Your task to perform on an android device: move an email to a new category in the gmail app Image 0: 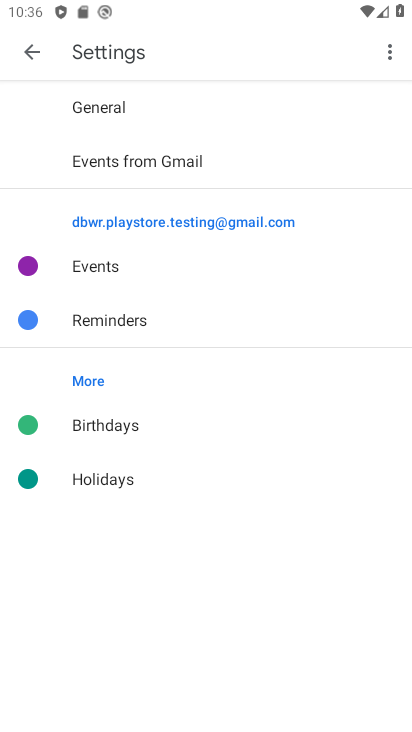
Step 0: press home button
Your task to perform on an android device: move an email to a new category in the gmail app Image 1: 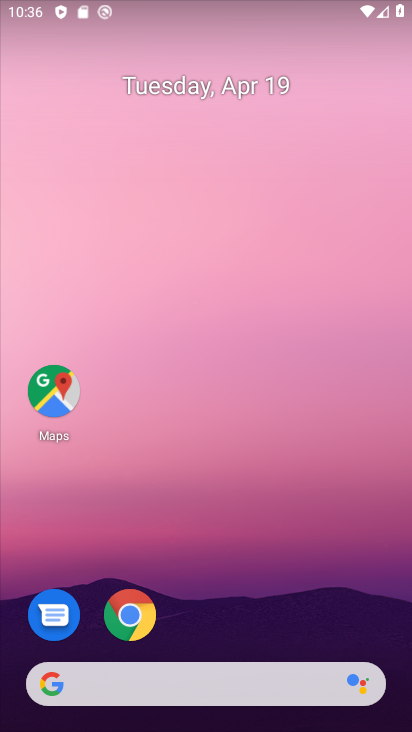
Step 1: drag from (214, 310) to (214, 108)
Your task to perform on an android device: move an email to a new category in the gmail app Image 2: 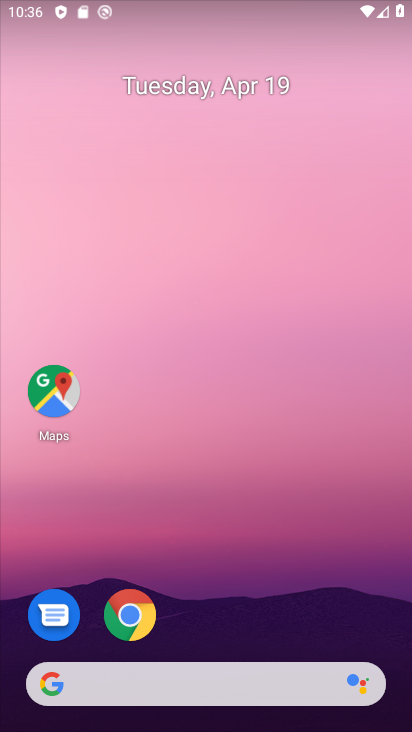
Step 2: drag from (241, 613) to (244, 67)
Your task to perform on an android device: move an email to a new category in the gmail app Image 3: 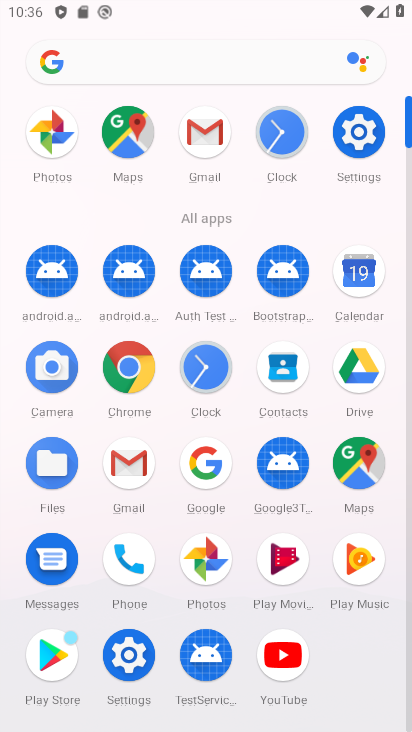
Step 3: click (192, 132)
Your task to perform on an android device: move an email to a new category in the gmail app Image 4: 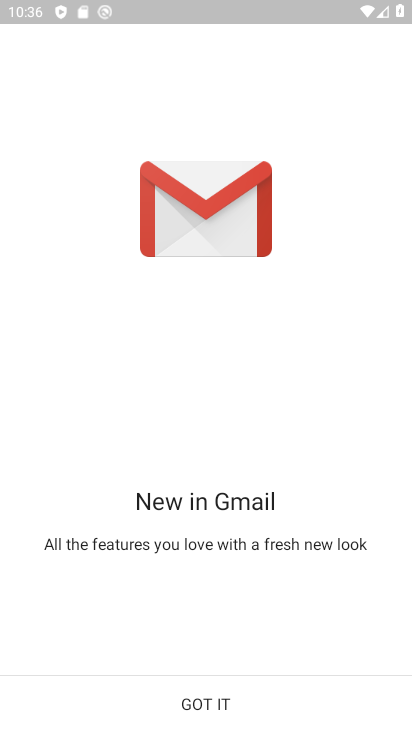
Step 4: click (260, 707)
Your task to perform on an android device: move an email to a new category in the gmail app Image 5: 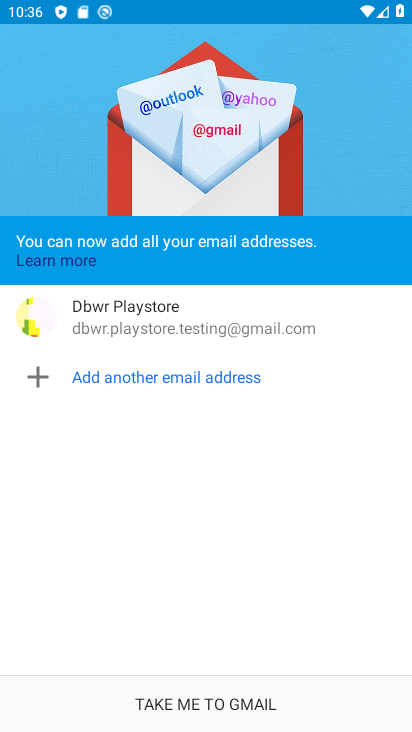
Step 5: click (250, 708)
Your task to perform on an android device: move an email to a new category in the gmail app Image 6: 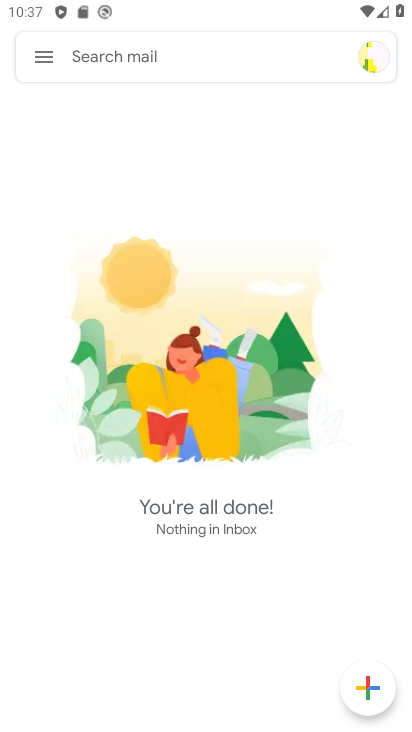
Step 6: click (44, 56)
Your task to perform on an android device: move an email to a new category in the gmail app Image 7: 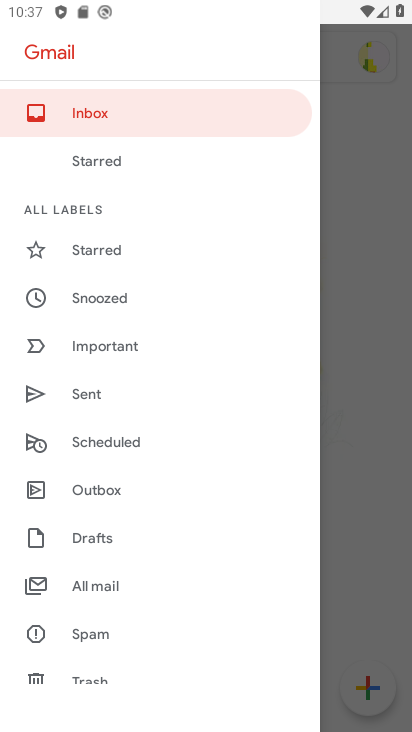
Step 7: drag from (193, 560) to (170, 225)
Your task to perform on an android device: move an email to a new category in the gmail app Image 8: 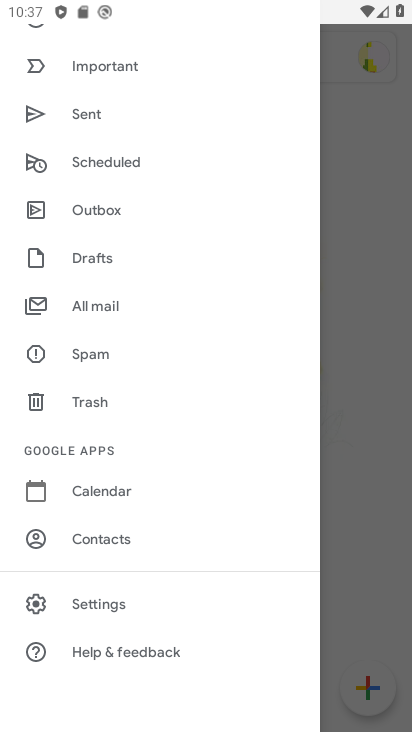
Step 8: click (143, 447)
Your task to perform on an android device: move an email to a new category in the gmail app Image 9: 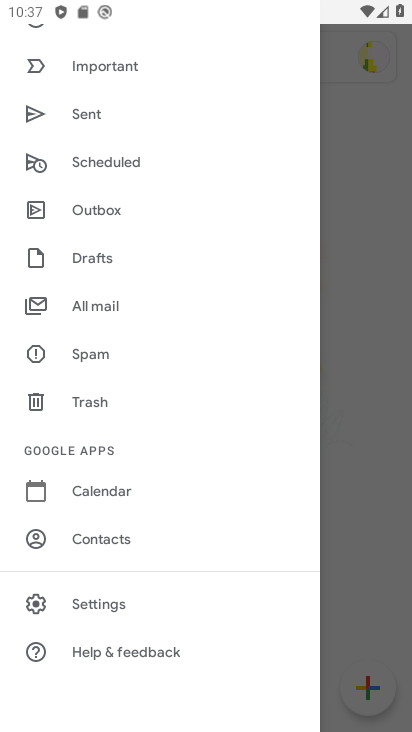
Step 9: click (130, 296)
Your task to perform on an android device: move an email to a new category in the gmail app Image 10: 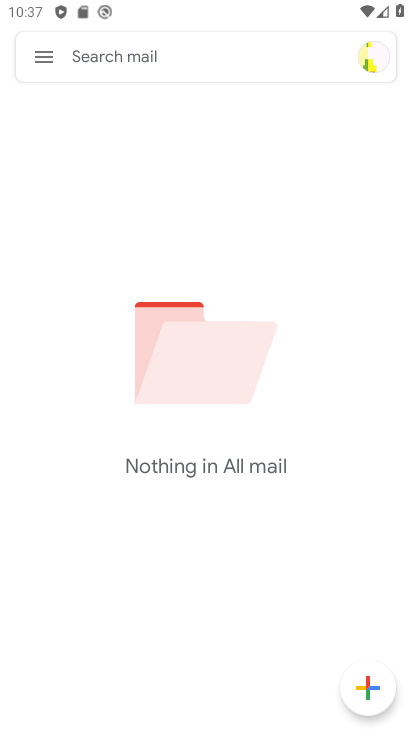
Step 10: task complete